Your task to perform on an android device: turn off javascript in the chrome app Image 0: 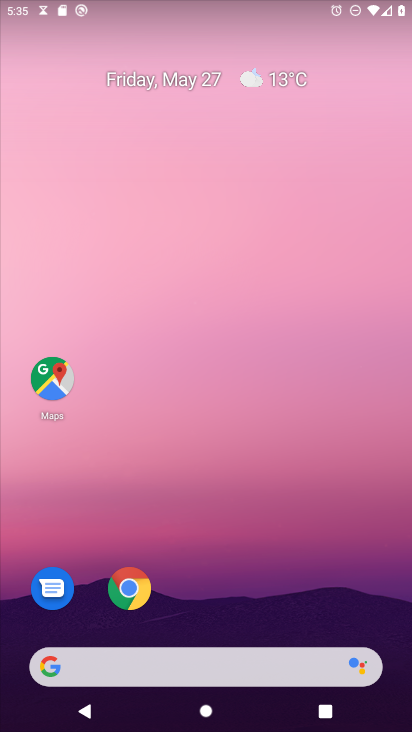
Step 0: click (125, 581)
Your task to perform on an android device: turn off javascript in the chrome app Image 1: 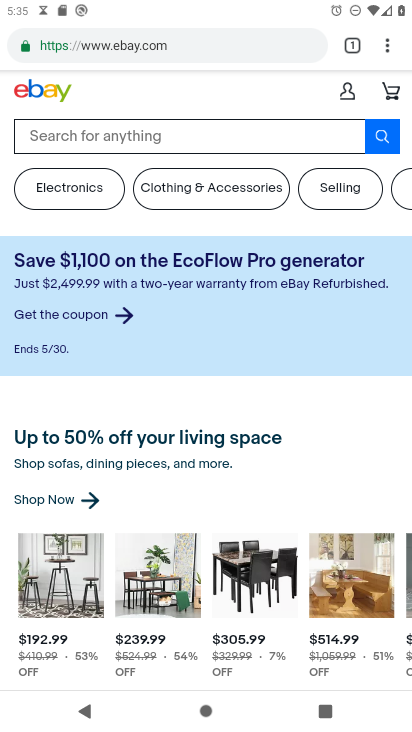
Step 1: drag from (387, 43) to (218, 547)
Your task to perform on an android device: turn off javascript in the chrome app Image 2: 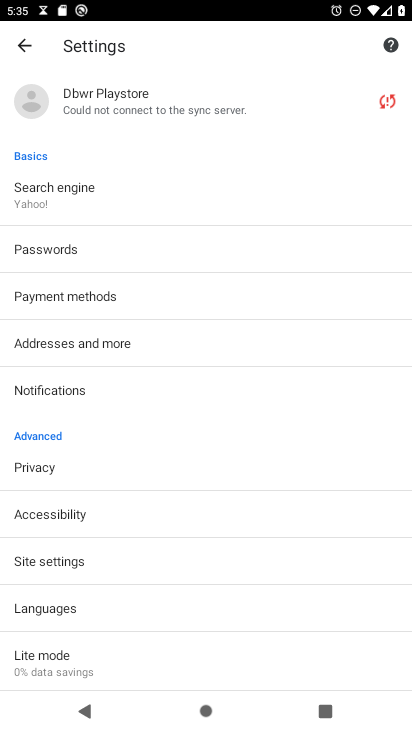
Step 2: click (74, 570)
Your task to perform on an android device: turn off javascript in the chrome app Image 3: 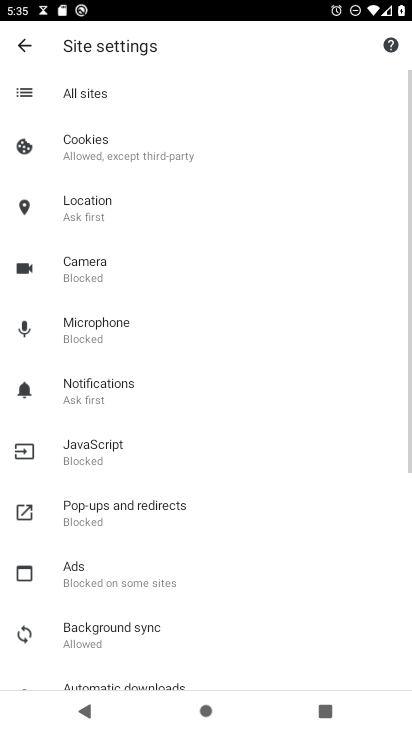
Step 3: click (104, 457)
Your task to perform on an android device: turn off javascript in the chrome app Image 4: 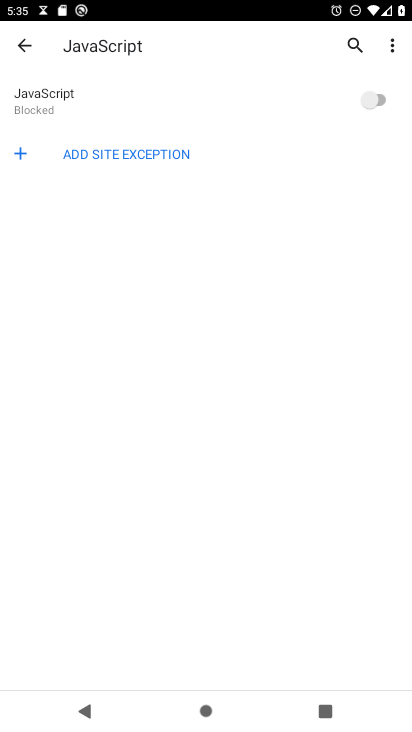
Step 4: task complete